Your task to perform on an android device: Open eBay Image 0: 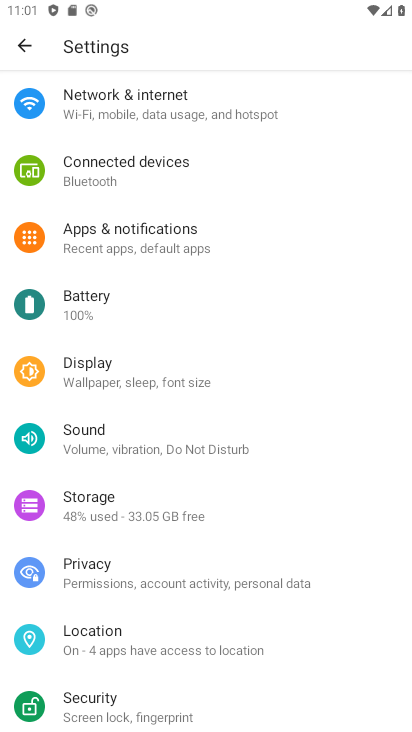
Step 0: press home button
Your task to perform on an android device: Open eBay Image 1: 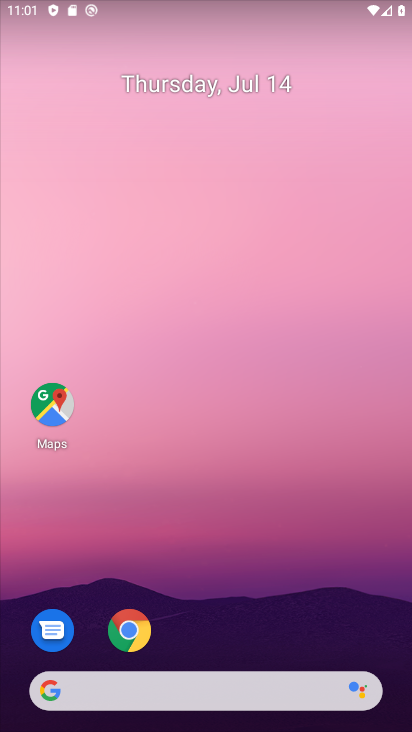
Step 1: drag from (208, 602) to (291, 17)
Your task to perform on an android device: Open eBay Image 2: 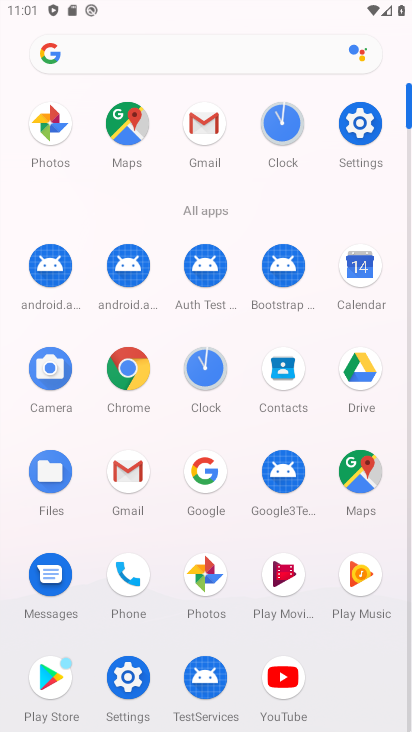
Step 2: click (128, 385)
Your task to perform on an android device: Open eBay Image 3: 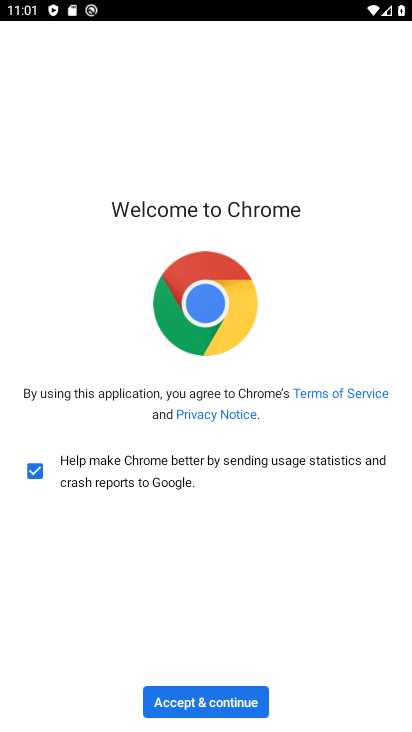
Step 3: click (225, 692)
Your task to perform on an android device: Open eBay Image 4: 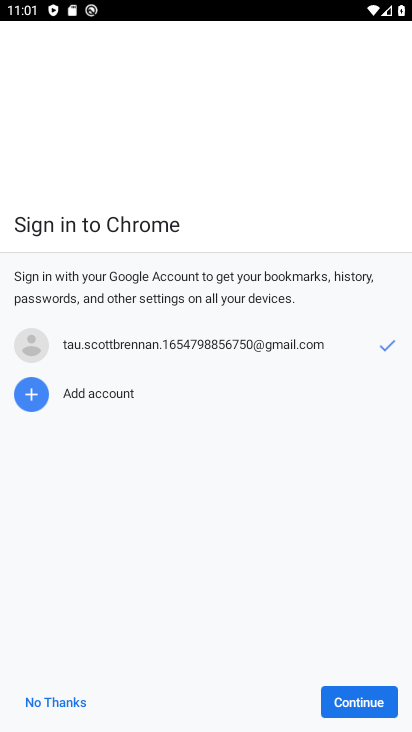
Step 4: click (364, 700)
Your task to perform on an android device: Open eBay Image 5: 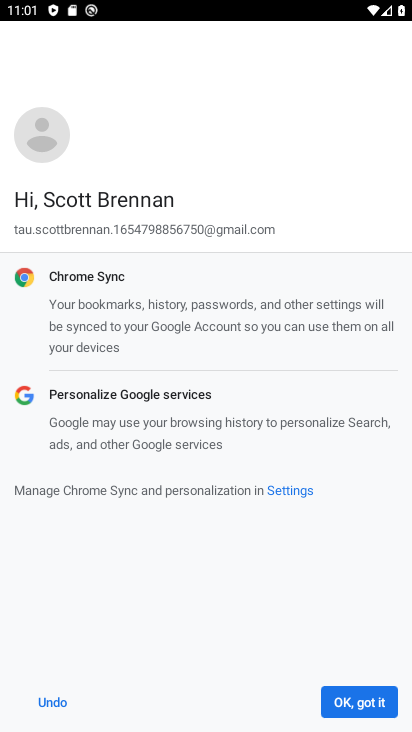
Step 5: click (364, 699)
Your task to perform on an android device: Open eBay Image 6: 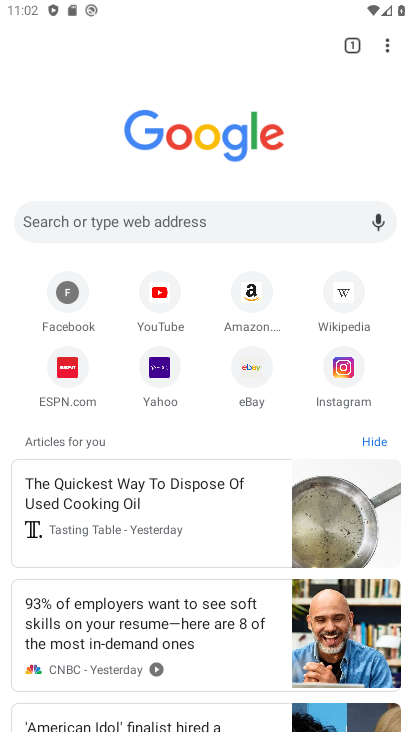
Step 6: click (259, 371)
Your task to perform on an android device: Open eBay Image 7: 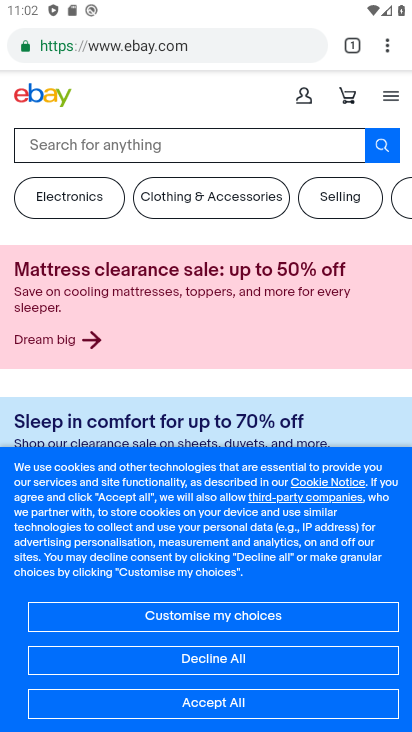
Step 7: task complete